Your task to perform on an android device: turn off airplane mode Image 0: 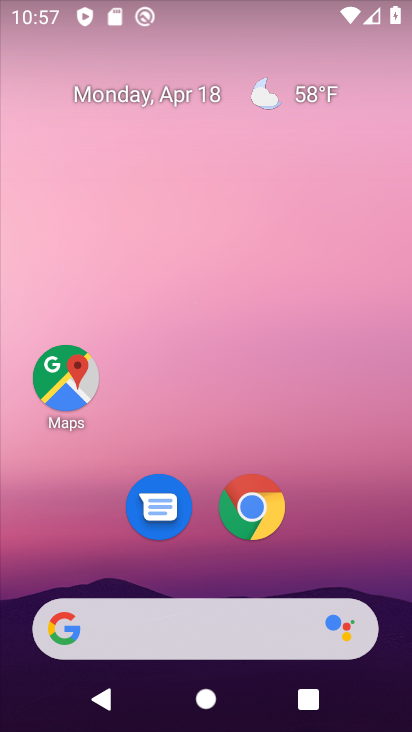
Step 0: drag from (319, 2) to (288, 537)
Your task to perform on an android device: turn off airplane mode Image 1: 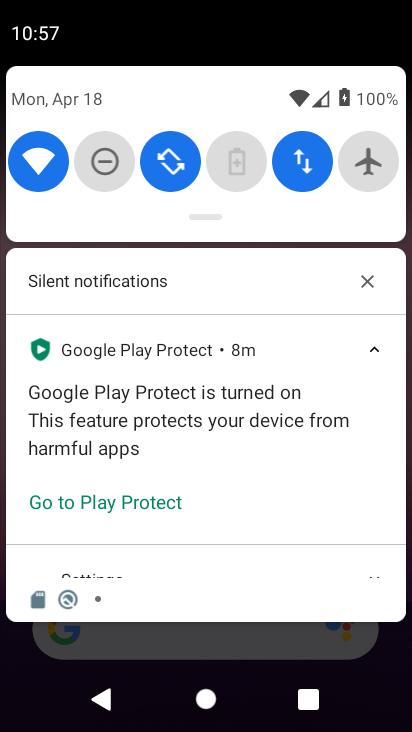
Step 1: task complete